Your task to perform on an android device: check out phone information Image 0: 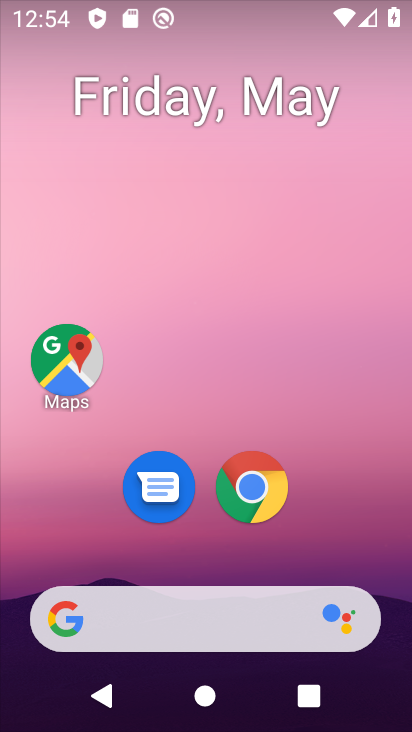
Step 0: drag from (202, 555) to (243, 166)
Your task to perform on an android device: check out phone information Image 1: 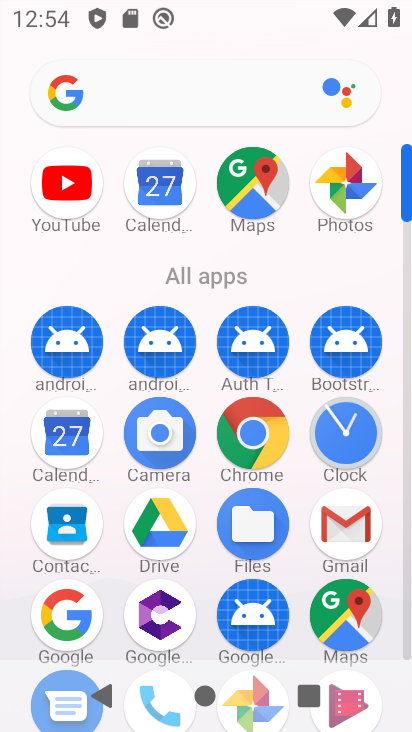
Step 1: drag from (185, 582) to (230, 212)
Your task to perform on an android device: check out phone information Image 2: 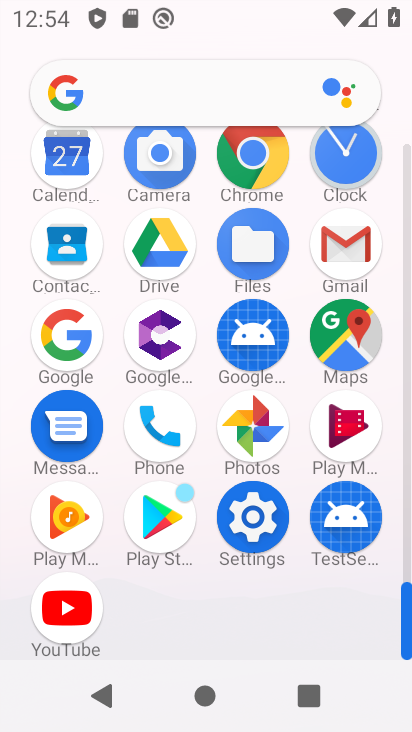
Step 2: click (256, 535)
Your task to perform on an android device: check out phone information Image 3: 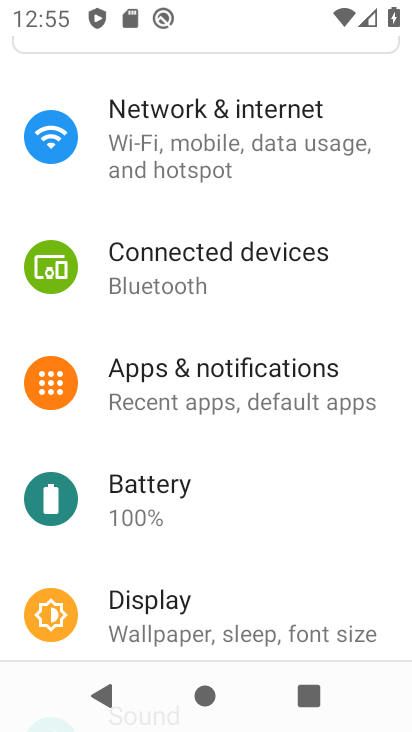
Step 3: drag from (134, 636) to (219, 60)
Your task to perform on an android device: check out phone information Image 4: 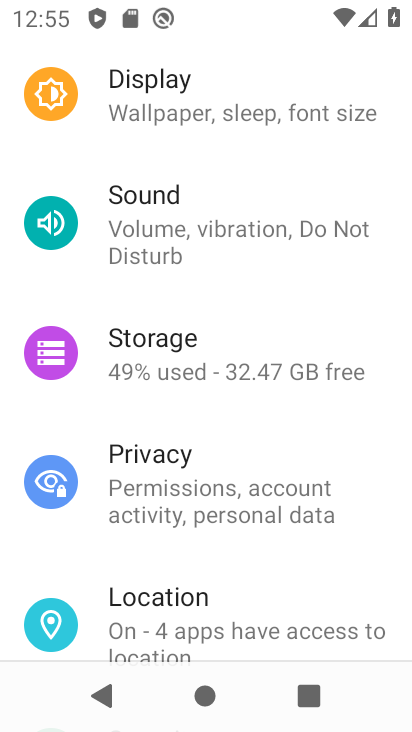
Step 4: drag from (176, 563) to (265, 62)
Your task to perform on an android device: check out phone information Image 5: 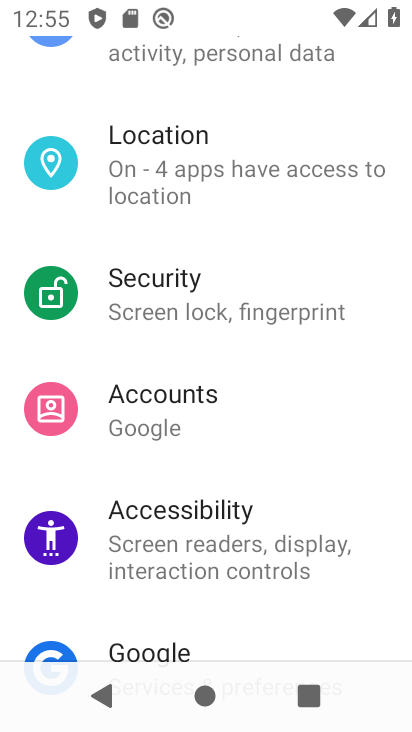
Step 5: drag from (125, 636) to (125, 362)
Your task to perform on an android device: check out phone information Image 6: 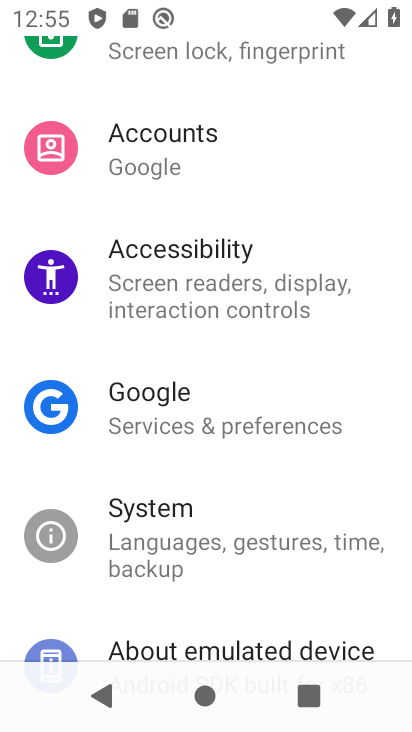
Step 6: drag from (112, 625) to (230, 151)
Your task to perform on an android device: check out phone information Image 7: 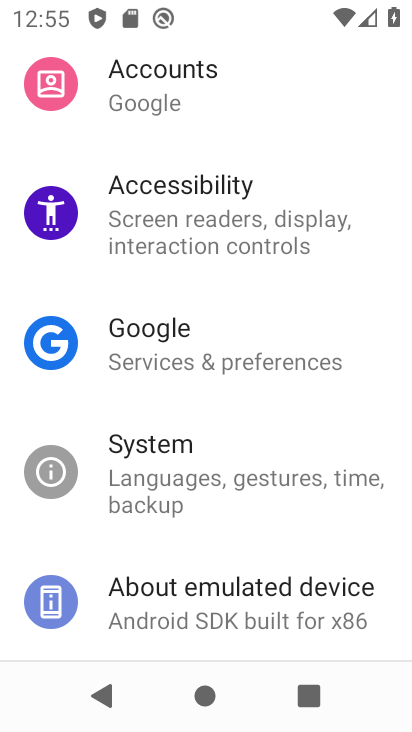
Step 7: click (196, 571)
Your task to perform on an android device: check out phone information Image 8: 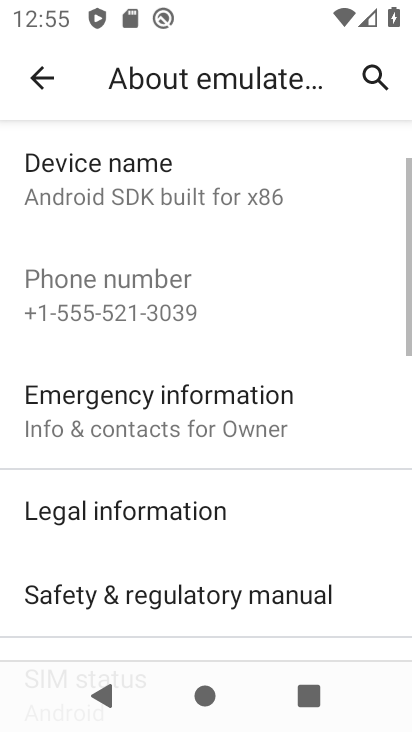
Step 8: task complete